Your task to perform on an android device: Open Google Chrome Image 0: 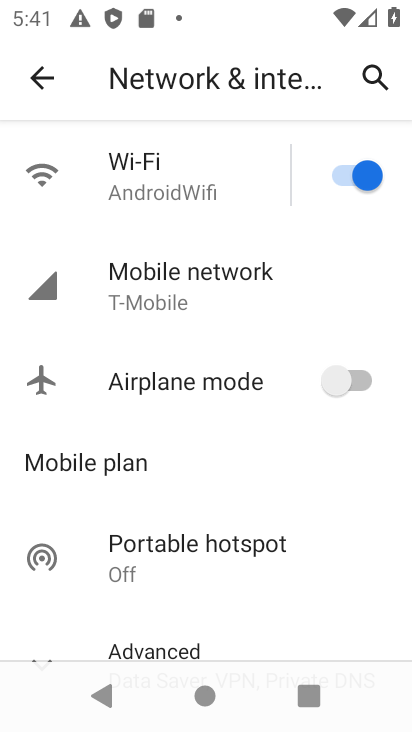
Step 0: press home button
Your task to perform on an android device: Open Google Chrome Image 1: 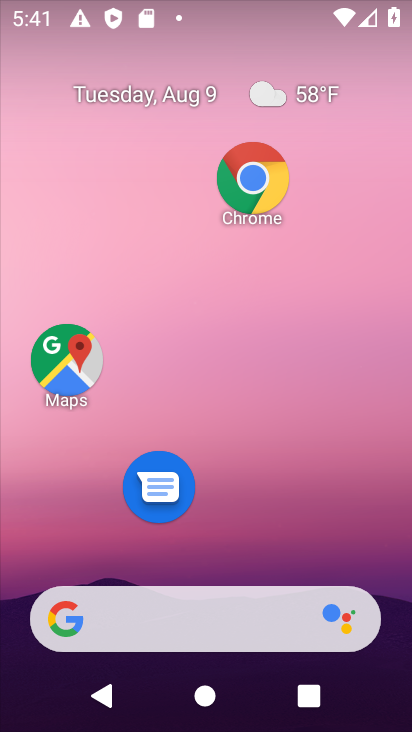
Step 1: click (236, 183)
Your task to perform on an android device: Open Google Chrome Image 2: 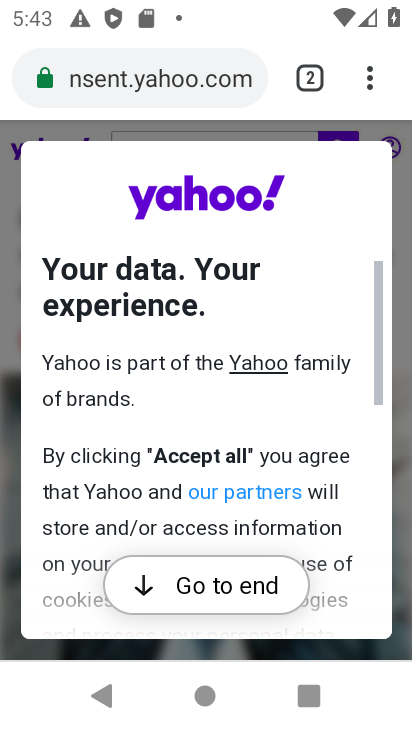
Step 2: task complete